Your task to perform on an android device: turn on improve location accuracy Image 0: 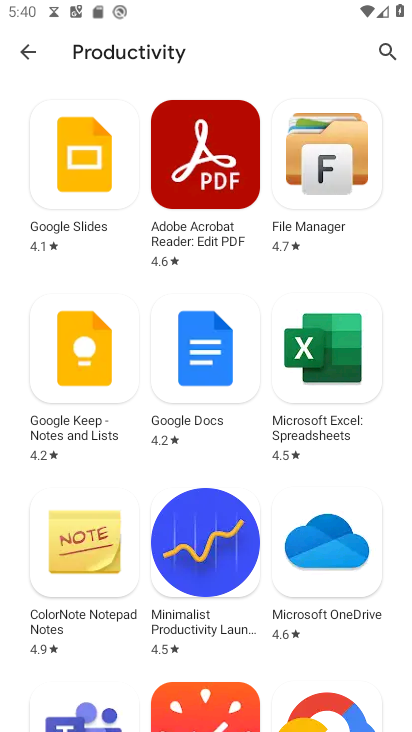
Step 0: press home button
Your task to perform on an android device: turn on improve location accuracy Image 1: 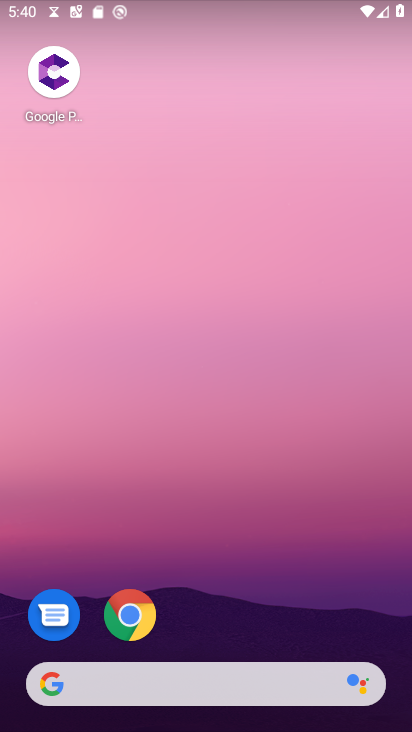
Step 1: drag from (293, 605) to (222, 17)
Your task to perform on an android device: turn on improve location accuracy Image 2: 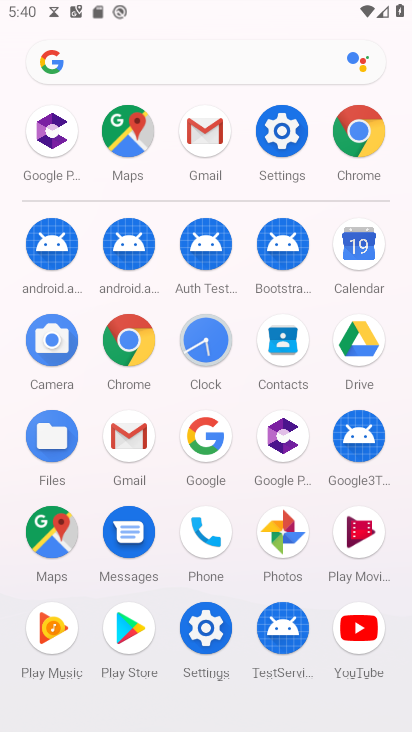
Step 2: click (203, 636)
Your task to perform on an android device: turn on improve location accuracy Image 3: 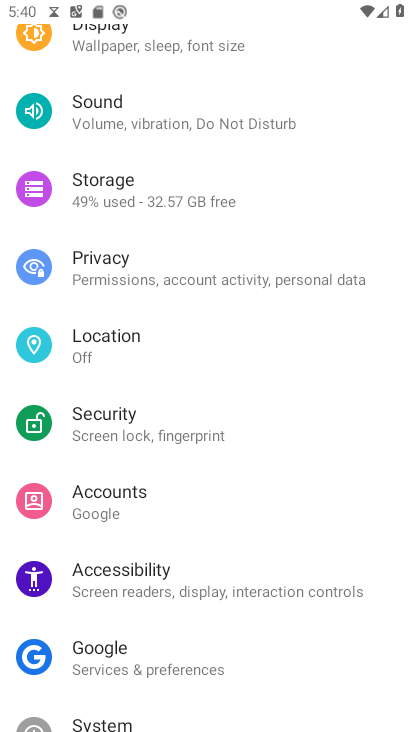
Step 3: drag from (165, 694) to (156, 311)
Your task to perform on an android device: turn on improve location accuracy Image 4: 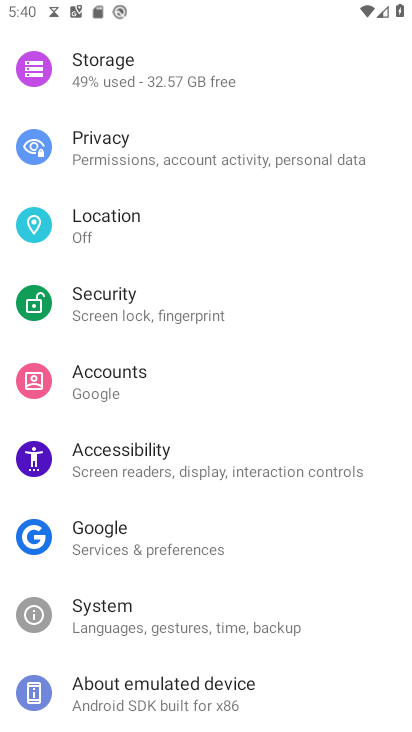
Step 4: drag from (131, 363) to (124, 728)
Your task to perform on an android device: turn on improve location accuracy Image 5: 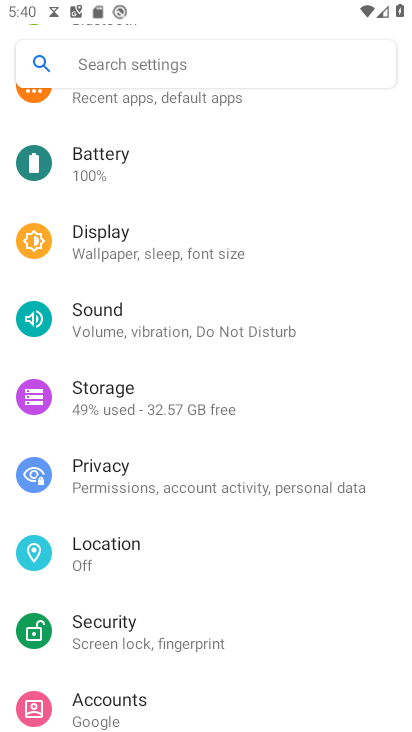
Step 5: click (96, 549)
Your task to perform on an android device: turn on improve location accuracy Image 6: 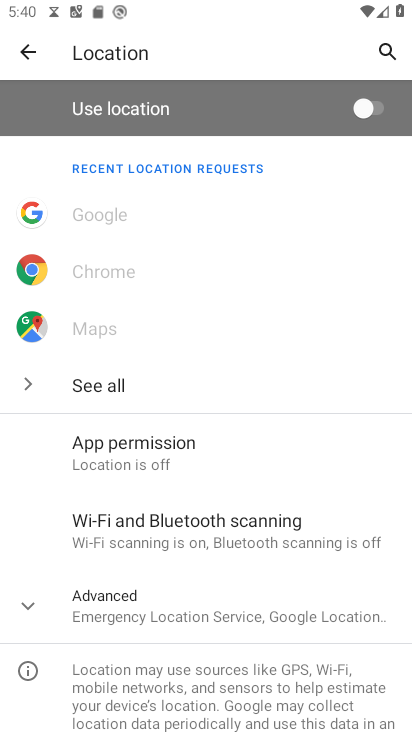
Step 6: click (240, 608)
Your task to perform on an android device: turn on improve location accuracy Image 7: 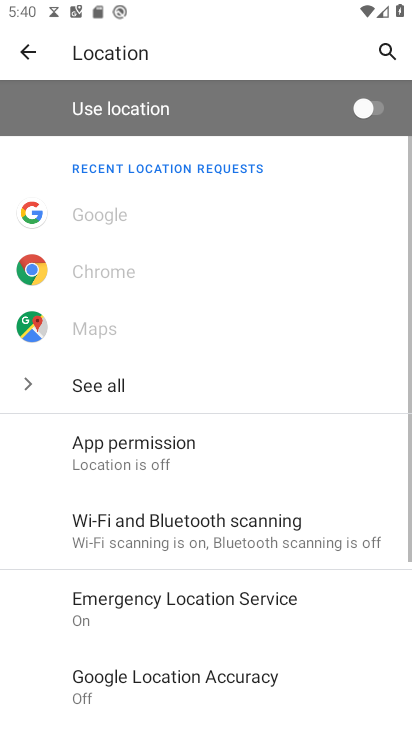
Step 7: drag from (248, 698) to (196, 181)
Your task to perform on an android device: turn on improve location accuracy Image 8: 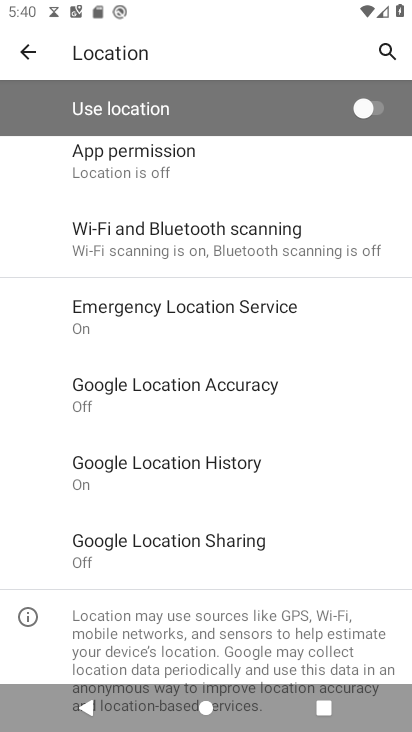
Step 8: click (216, 395)
Your task to perform on an android device: turn on improve location accuracy Image 9: 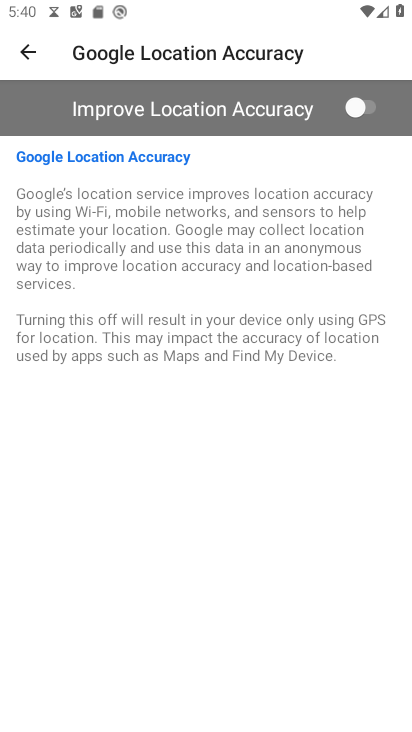
Step 9: click (372, 103)
Your task to perform on an android device: turn on improve location accuracy Image 10: 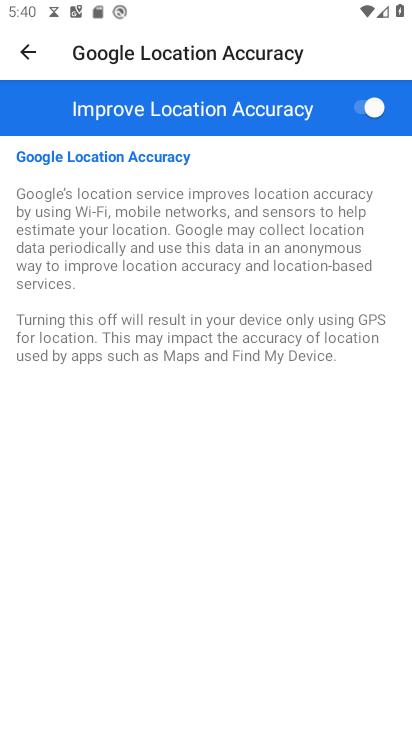
Step 10: task complete